Your task to perform on an android device: Toggle the flashlight Image 0: 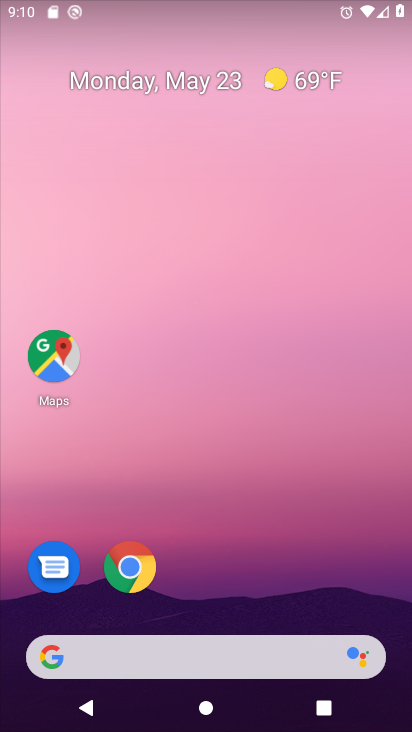
Step 0: drag from (197, 589) to (210, 301)
Your task to perform on an android device: Toggle the flashlight Image 1: 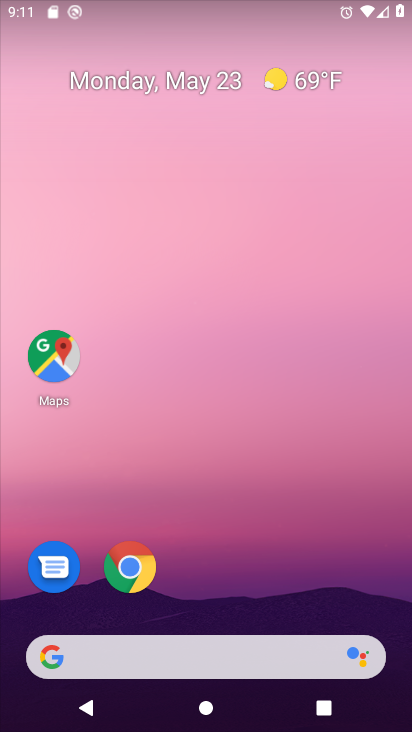
Step 1: drag from (236, 542) to (251, 19)
Your task to perform on an android device: Toggle the flashlight Image 2: 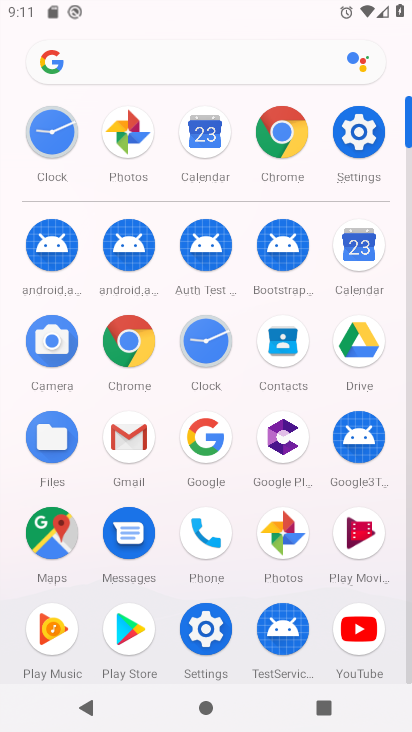
Step 2: click (352, 142)
Your task to perform on an android device: Toggle the flashlight Image 3: 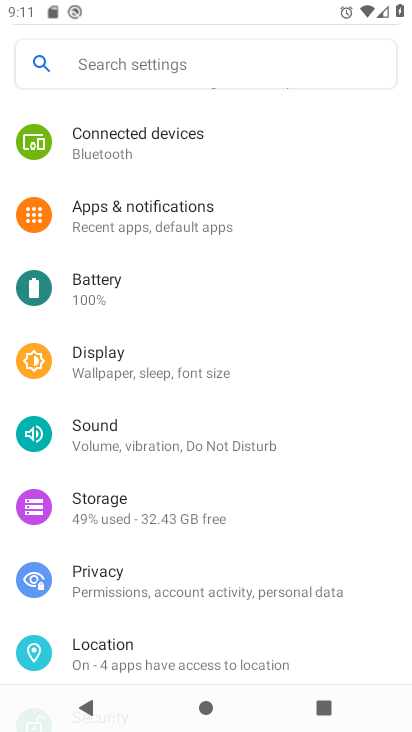
Step 3: click (218, 77)
Your task to perform on an android device: Toggle the flashlight Image 4: 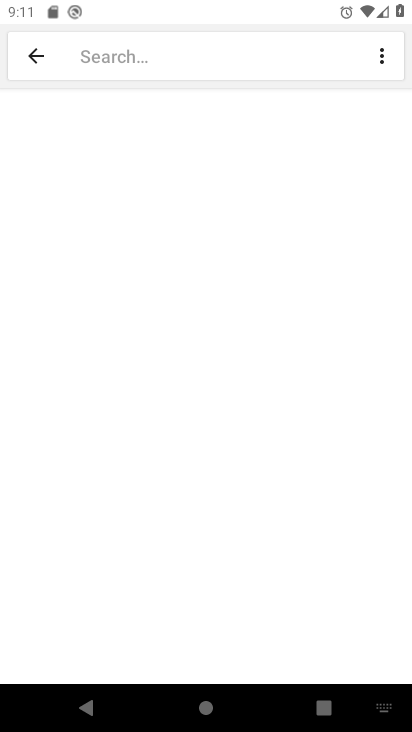
Step 4: type "flashlight"
Your task to perform on an android device: Toggle the flashlight Image 5: 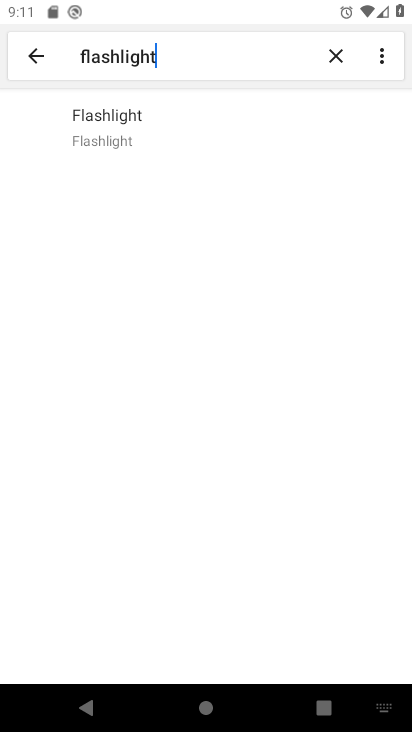
Step 5: click (125, 123)
Your task to perform on an android device: Toggle the flashlight Image 6: 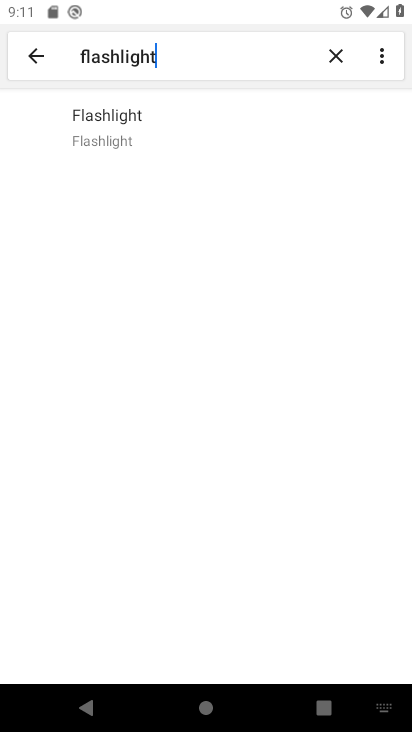
Step 6: click (125, 126)
Your task to perform on an android device: Toggle the flashlight Image 7: 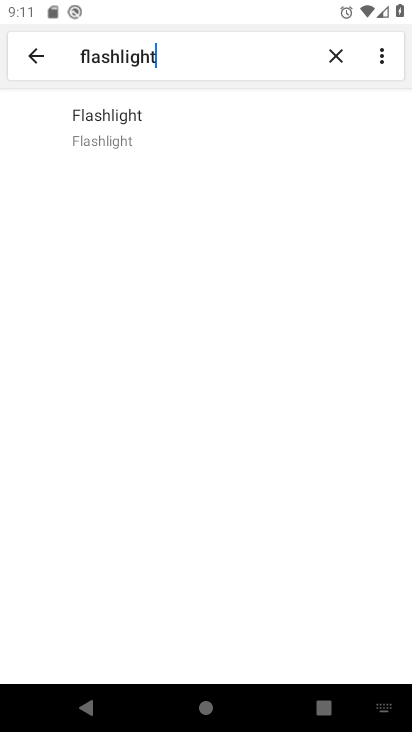
Step 7: task complete